Your task to perform on an android device: allow notifications from all sites in the chrome app Image 0: 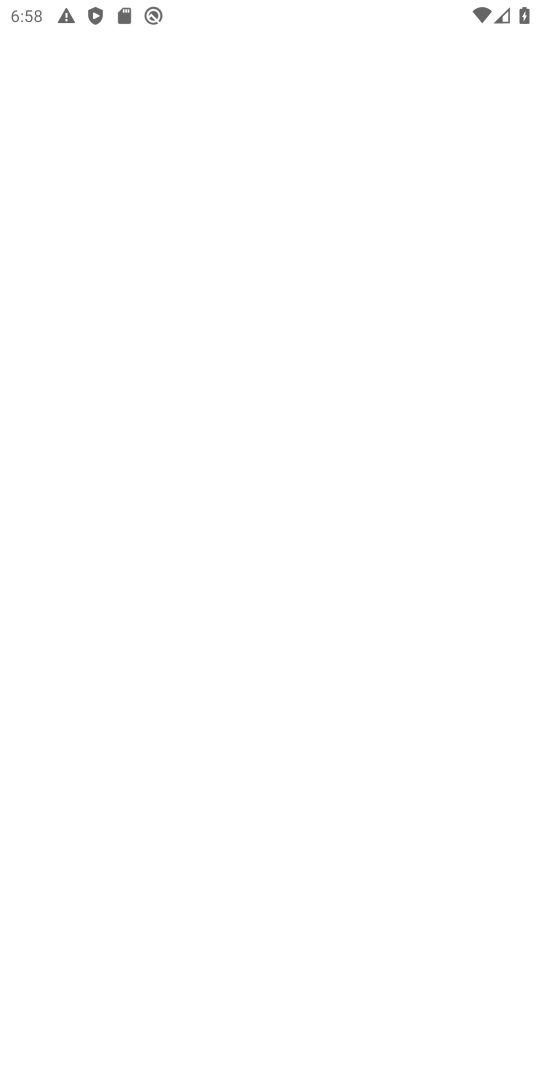
Step 0: press home button
Your task to perform on an android device: allow notifications from all sites in the chrome app Image 1: 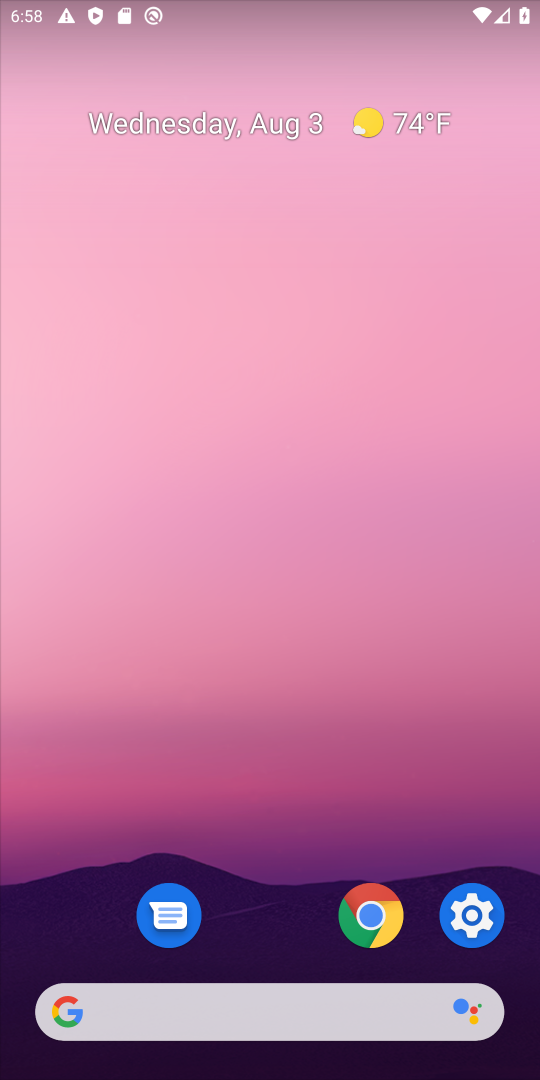
Step 1: drag from (296, 1048) to (344, 156)
Your task to perform on an android device: allow notifications from all sites in the chrome app Image 2: 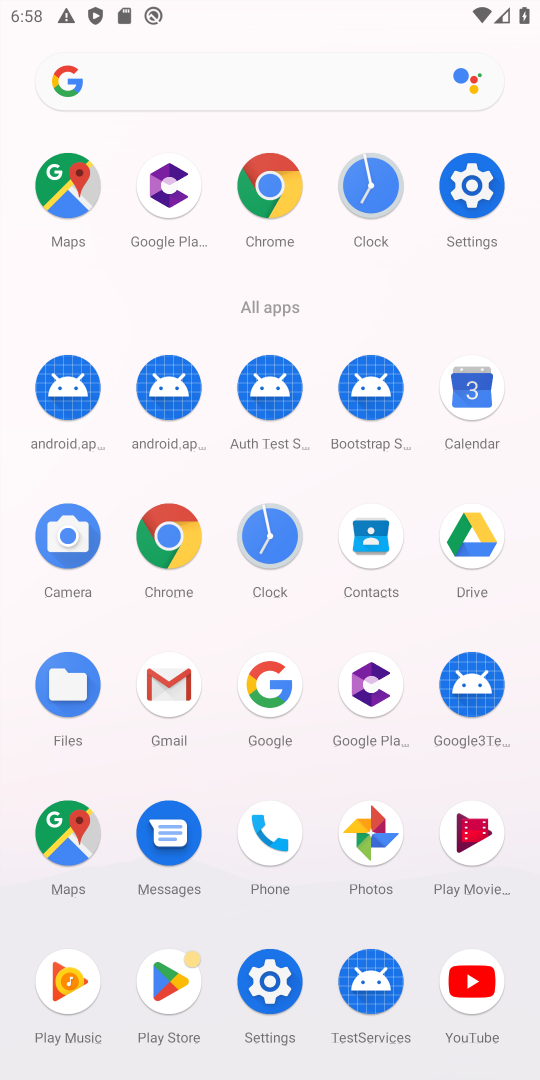
Step 2: click (248, 180)
Your task to perform on an android device: allow notifications from all sites in the chrome app Image 3: 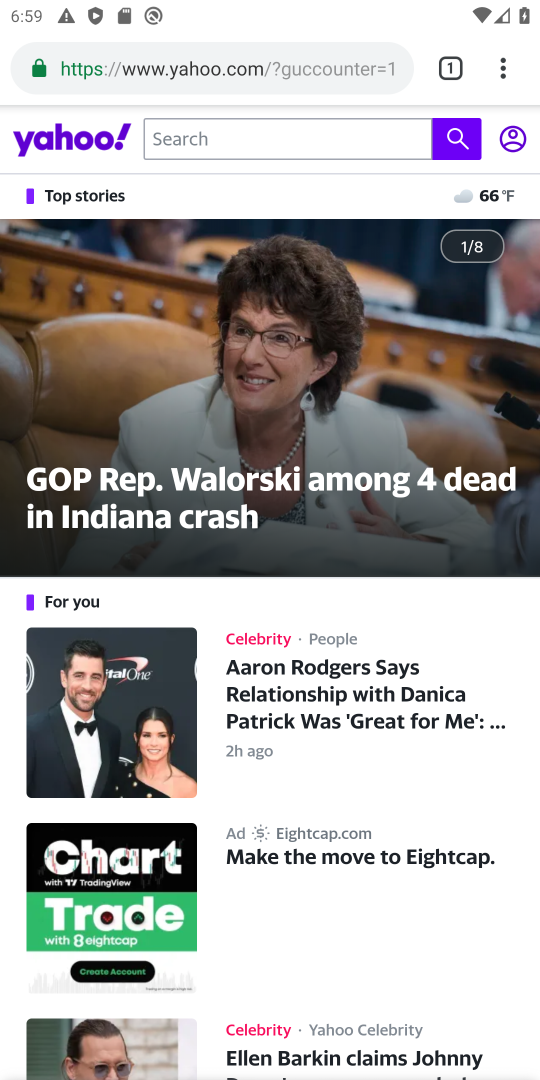
Step 3: click (504, 90)
Your task to perform on an android device: allow notifications from all sites in the chrome app Image 4: 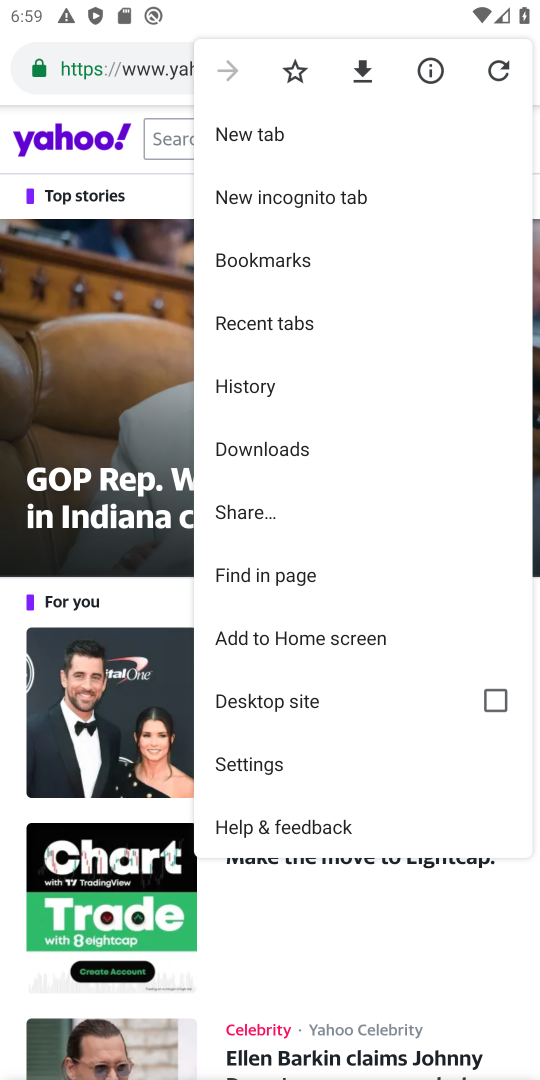
Step 4: click (291, 779)
Your task to perform on an android device: allow notifications from all sites in the chrome app Image 5: 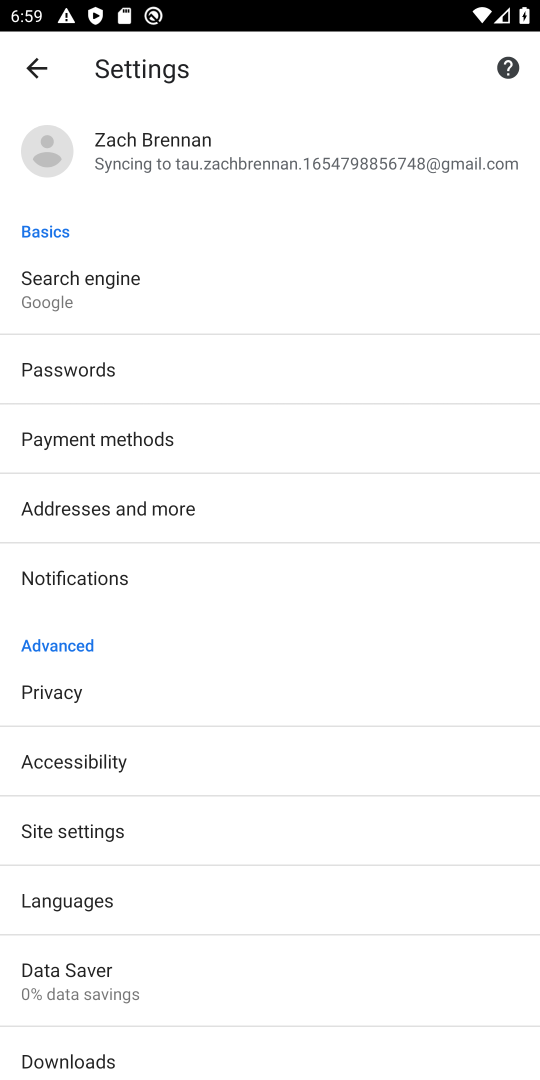
Step 5: click (145, 850)
Your task to perform on an android device: allow notifications from all sites in the chrome app Image 6: 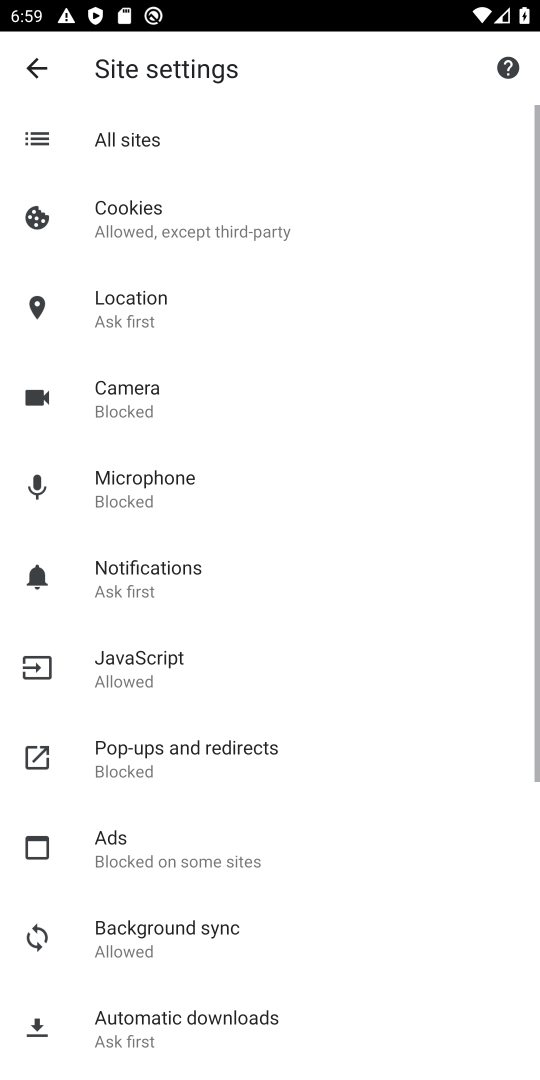
Step 6: click (130, 582)
Your task to perform on an android device: allow notifications from all sites in the chrome app Image 7: 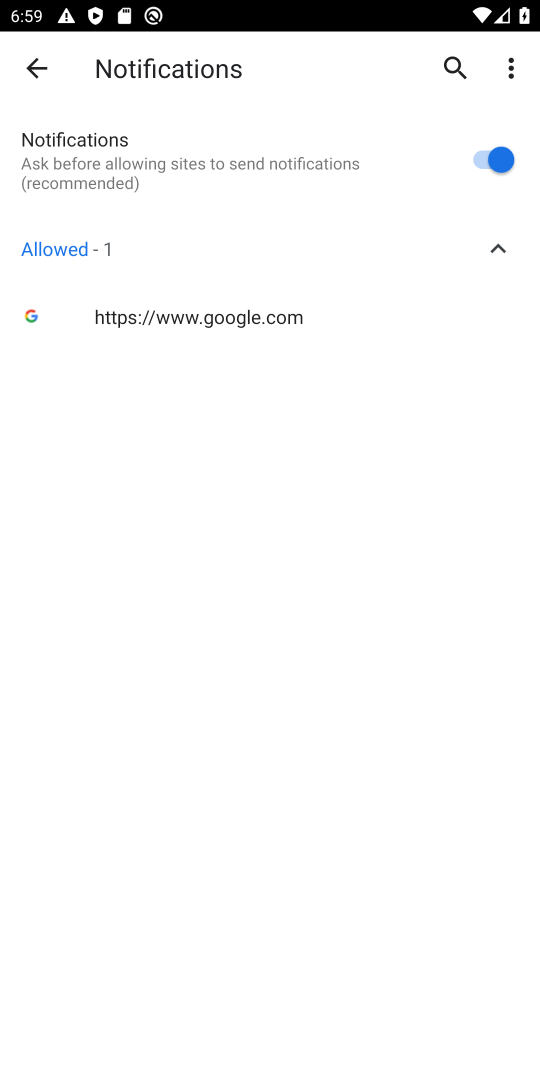
Step 7: click (473, 180)
Your task to perform on an android device: allow notifications from all sites in the chrome app Image 8: 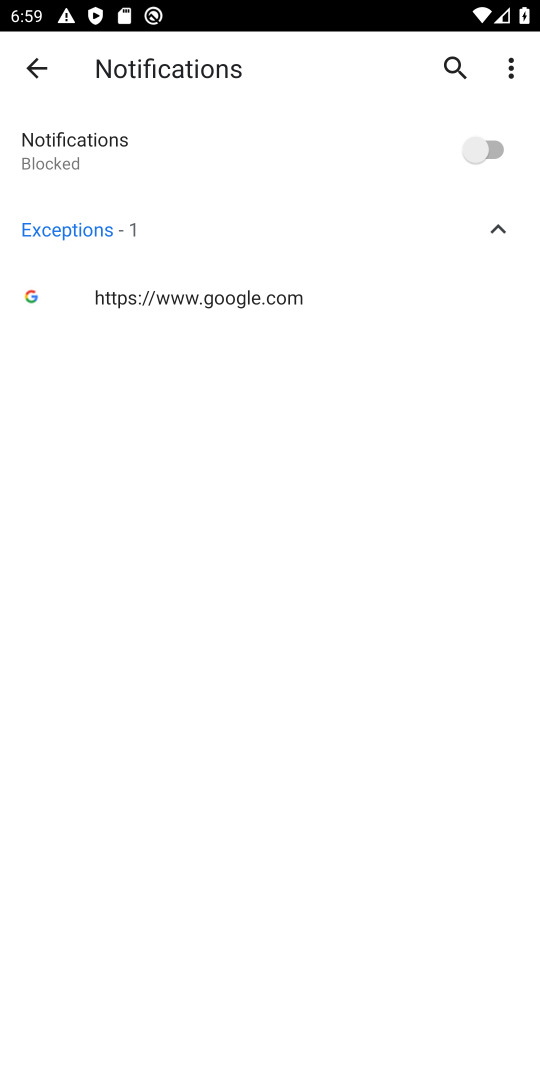
Step 8: click (473, 180)
Your task to perform on an android device: allow notifications from all sites in the chrome app Image 9: 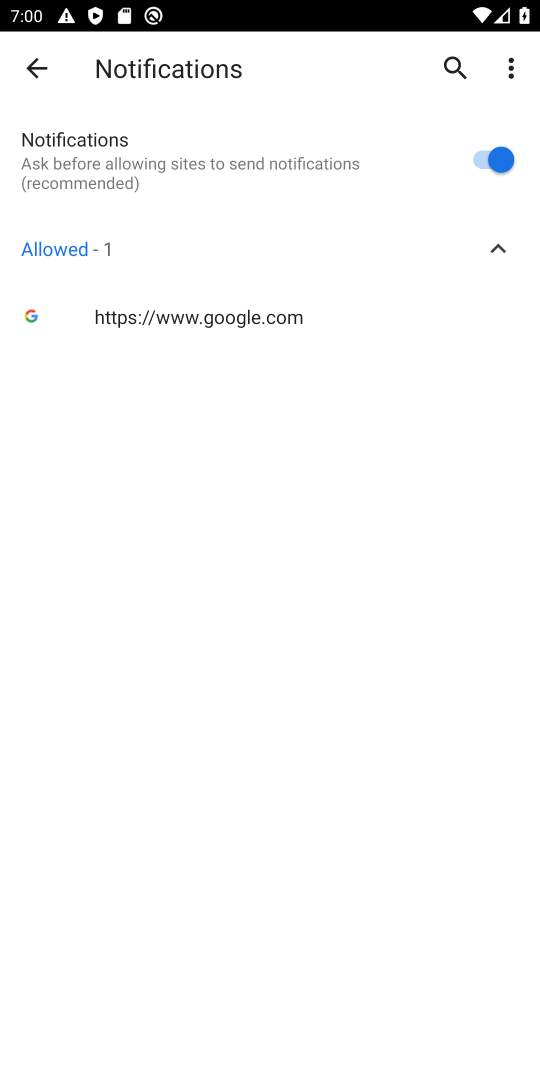
Step 9: task complete